Your task to perform on an android device: find snoozed emails in the gmail app Image 0: 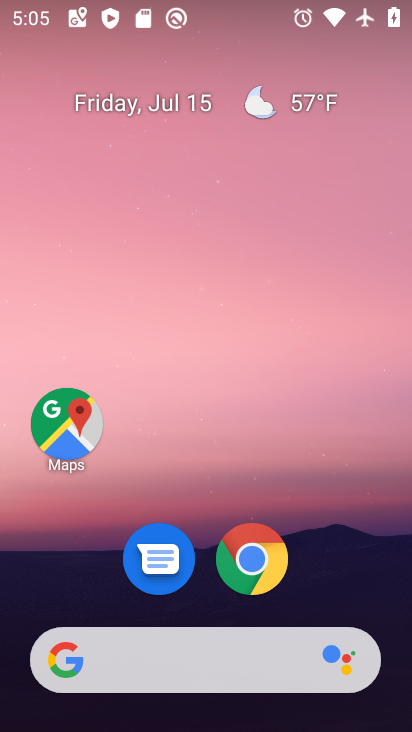
Step 0: drag from (105, 582) to (257, 12)
Your task to perform on an android device: find snoozed emails in the gmail app Image 1: 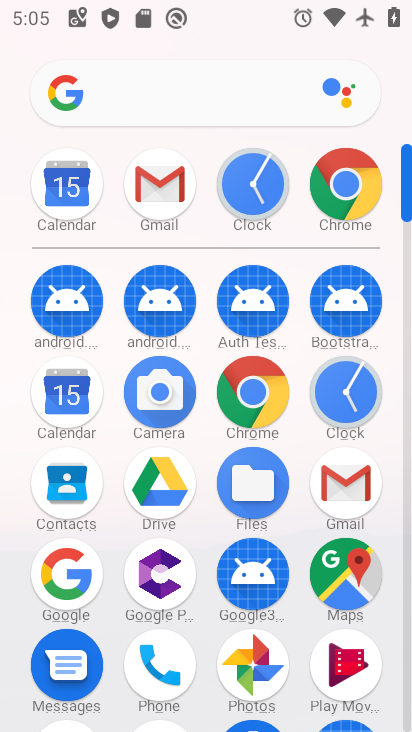
Step 1: click (154, 178)
Your task to perform on an android device: find snoozed emails in the gmail app Image 2: 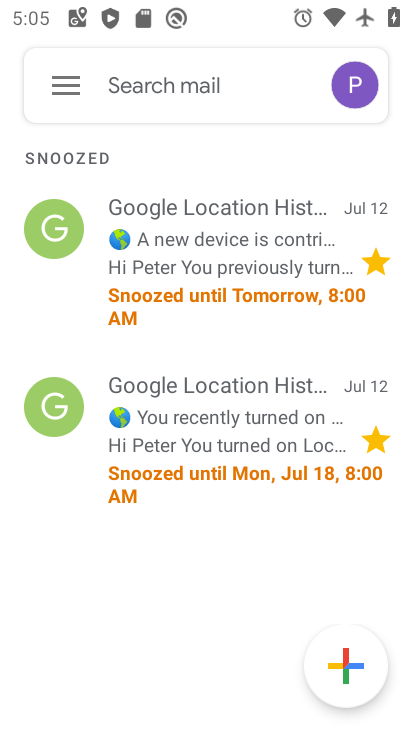
Step 2: click (67, 77)
Your task to perform on an android device: find snoozed emails in the gmail app Image 3: 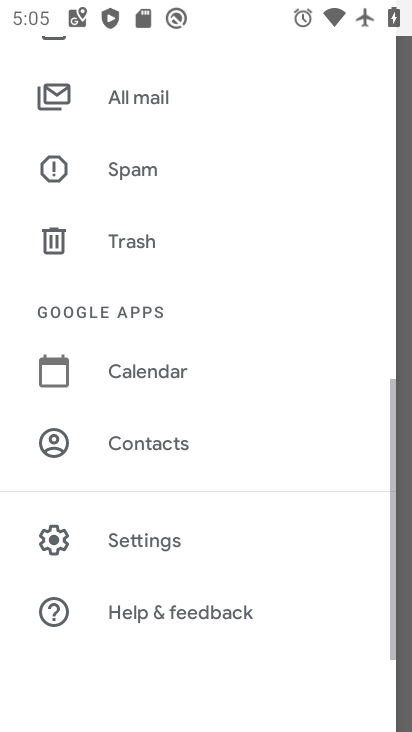
Step 3: drag from (156, 134) to (219, 731)
Your task to perform on an android device: find snoozed emails in the gmail app Image 4: 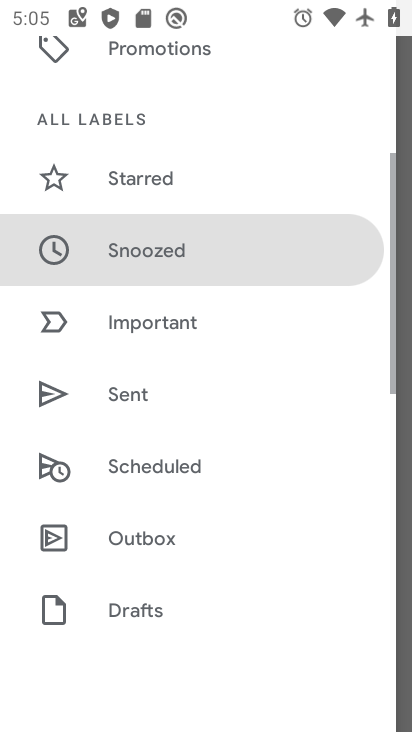
Step 4: click (149, 226)
Your task to perform on an android device: find snoozed emails in the gmail app Image 5: 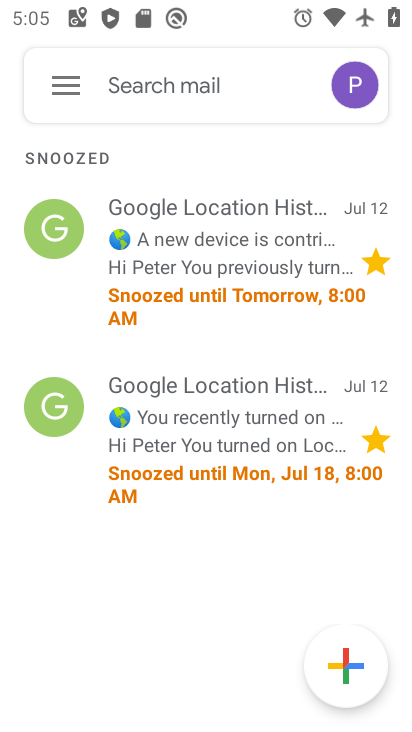
Step 5: task complete